Your task to perform on an android device: Search for seafood restaurants on Google Maps Image 0: 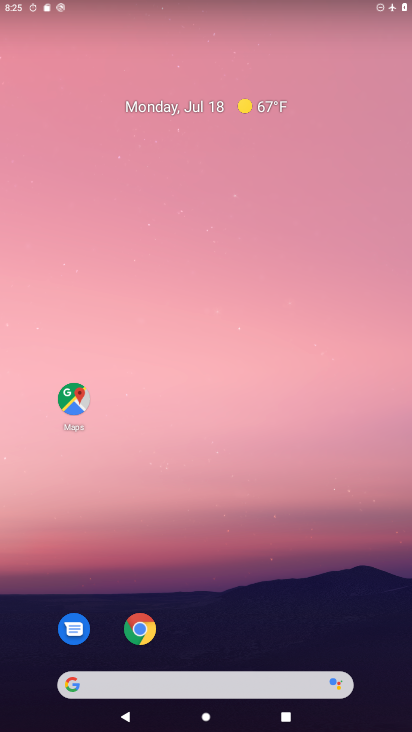
Step 0: drag from (229, 657) to (173, 51)
Your task to perform on an android device: Search for seafood restaurants on Google Maps Image 1: 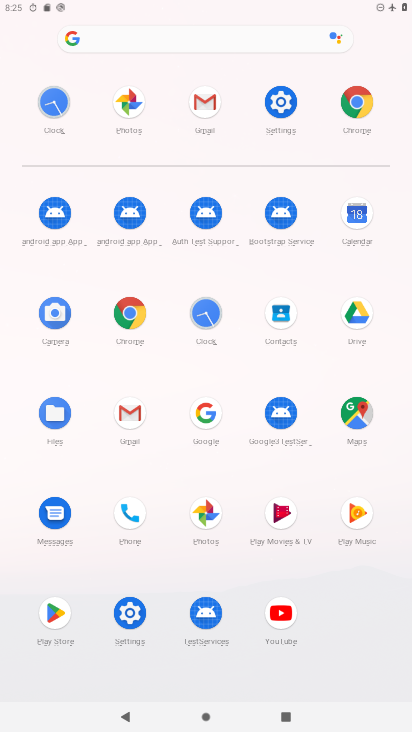
Step 1: click (351, 412)
Your task to perform on an android device: Search for seafood restaurants on Google Maps Image 2: 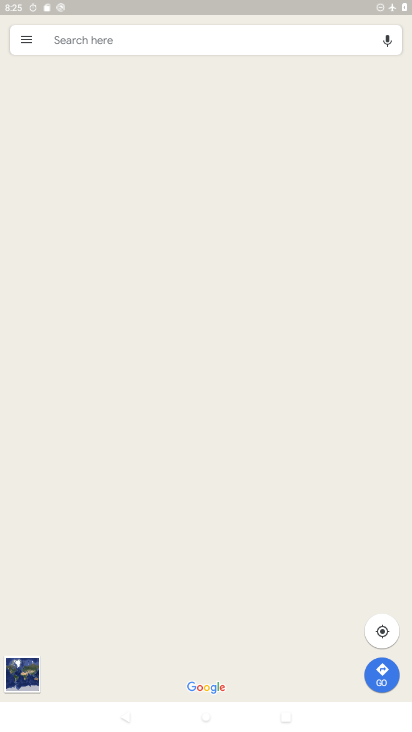
Step 2: click (154, 34)
Your task to perform on an android device: Search for seafood restaurants on Google Maps Image 3: 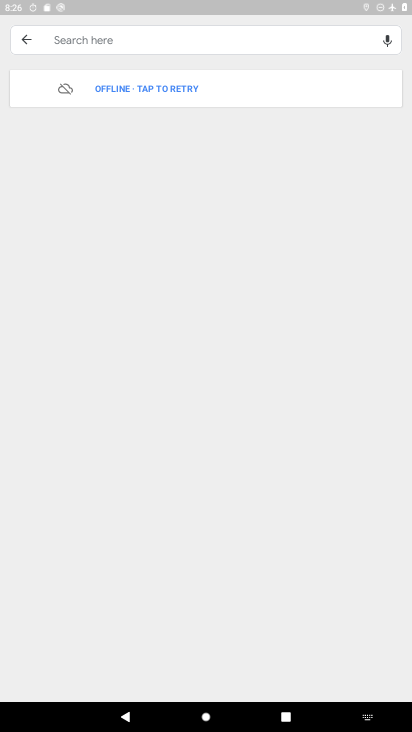
Step 3: type "seafood restaurants"
Your task to perform on an android device: Search for seafood restaurants on Google Maps Image 4: 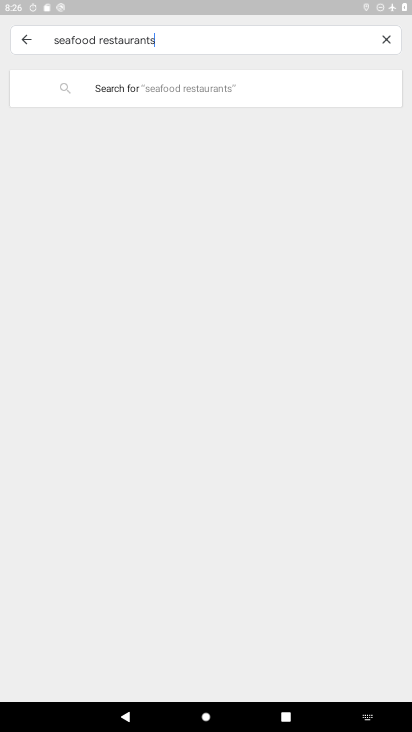
Step 4: type ""
Your task to perform on an android device: Search for seafood restaurants on Google Maps Image 5: 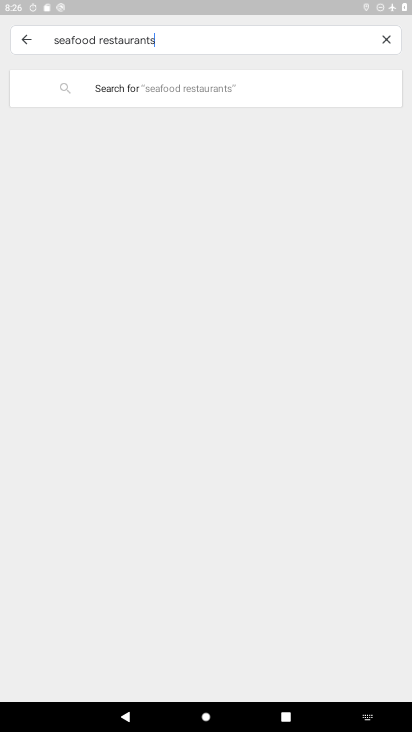
Step 5: task complete